Your task to perform on an android device: Open Chrome and go to settings Image 0: 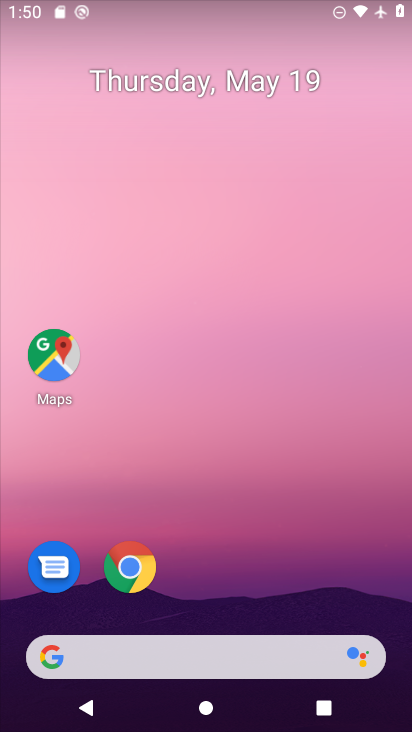
Step 0: click (143, 568)
Your task to perform on an android device: Open Chrome and go to settings Image 1: 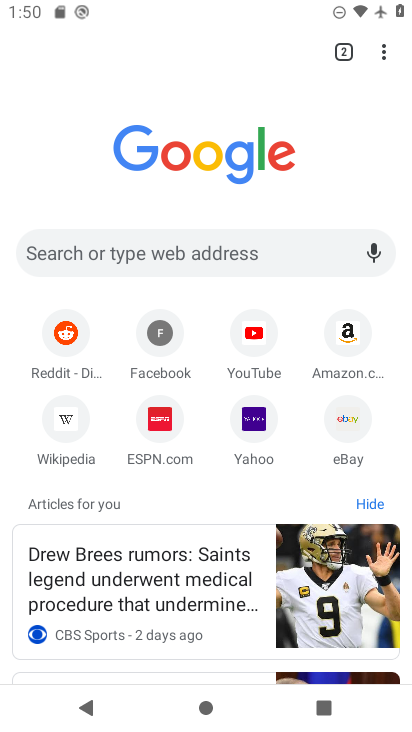
Step 1: click (384, 58)
Your task to perform on an android device: Open Chrome and go to settings Image 2: 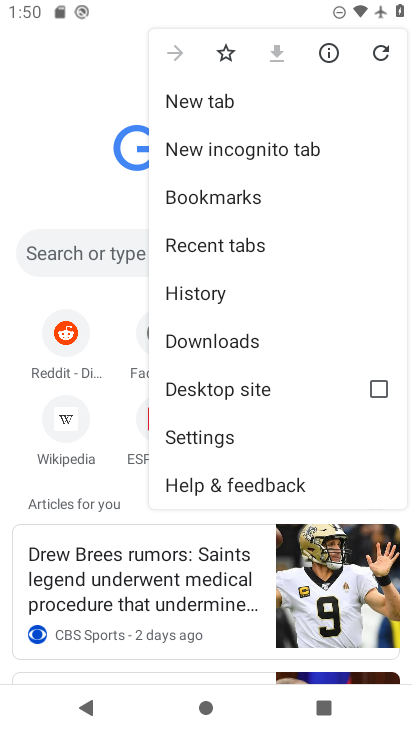
Step 2: click (214, 433)
Your task to perform on an android device: Open Chrome and go to settings Image 3: 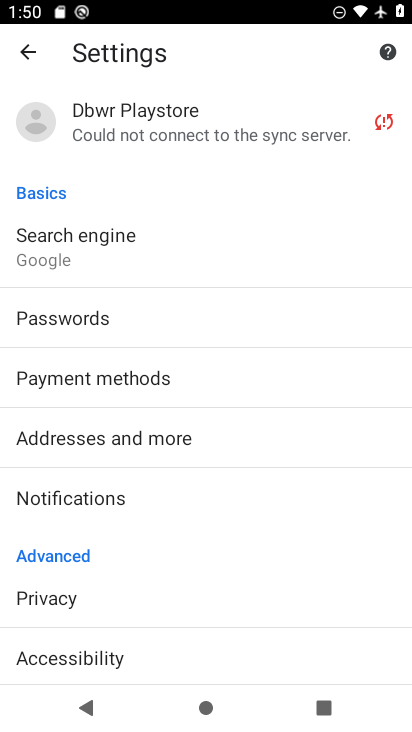
Step 3: task complete